Your task to perform on an android device: turn off translation in the chrome app Image 0: 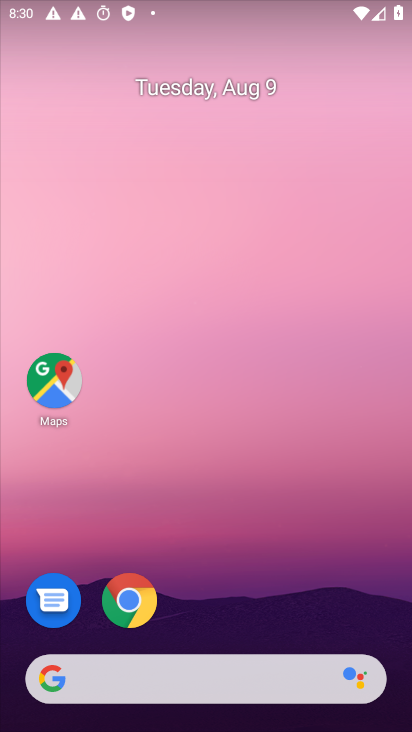
Step 0: press home button
Your task to perform on an android device: turn off translation in the chrome app Image 1: 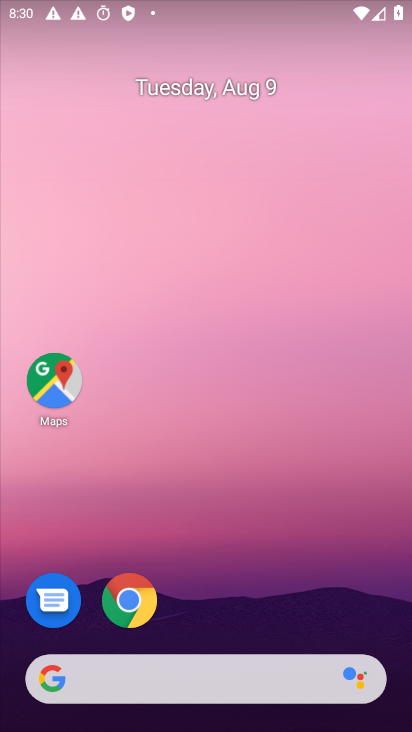
Step 1: click (124, 602)
Your task to perform on an android device: turn off translation in the chrome app Image 2: 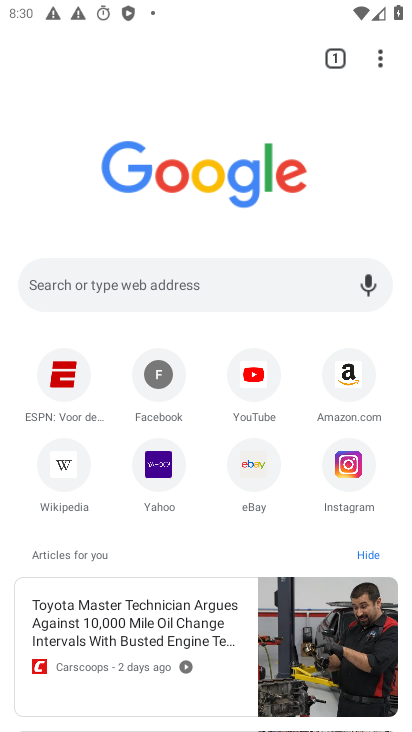
Step 2: drag from (373, 58) to (150, 501)
Your task to perform on an android device: turn off translation in the chrome app Image 3: 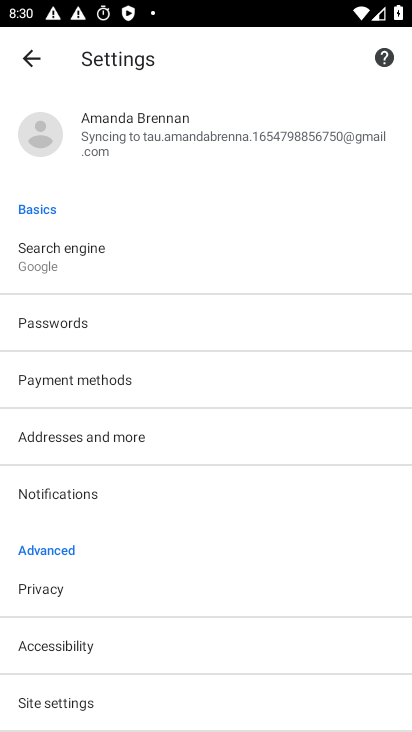
Step 3: drag from (231, 679) to (276, 117)
Your task to perform on an android device: turn off translation in the chrome app Image 4: 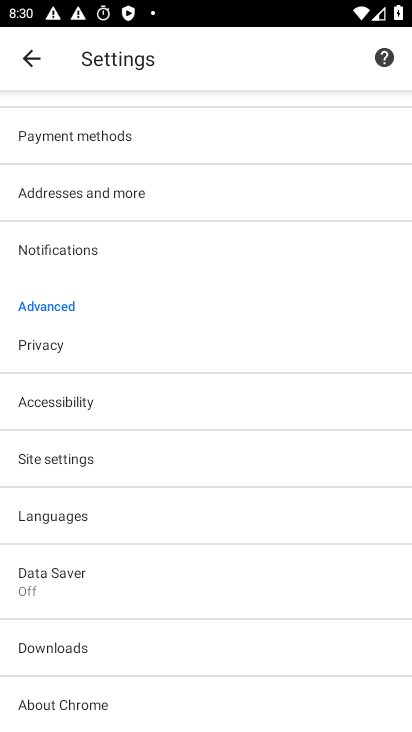
Step 4: click (44, 521)
Your task to perform on an android device: turn off translation in the chrome app Image 5: 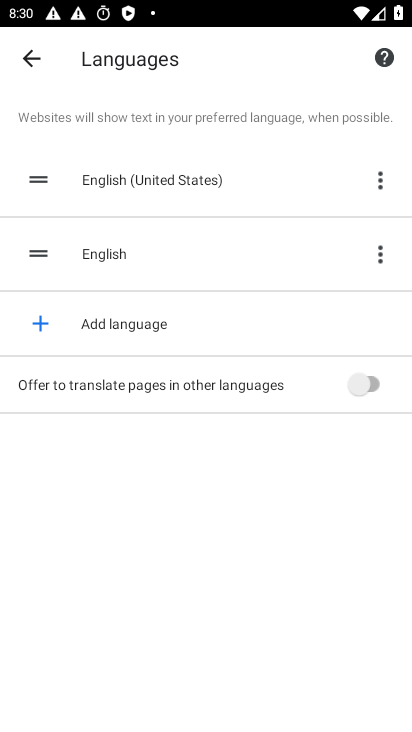
Step 5: task complete